Your task to perform on an android device: open chrome privacy settings Image 0: 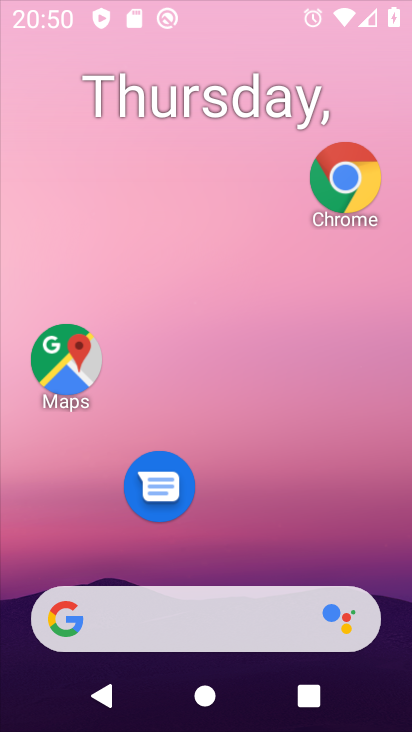
Step 0: click (233, 89)
Your task to perform on an android device: open chrome privacy settings Image 1: 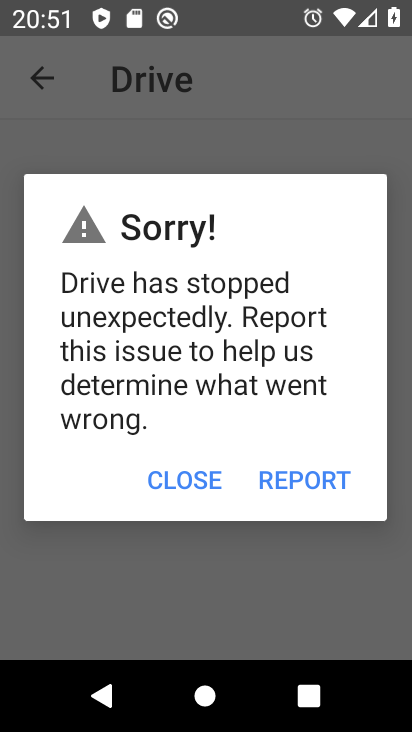
Step 1: press home button
Your task to perform on an android device: open chrome privacy settings Image 2: 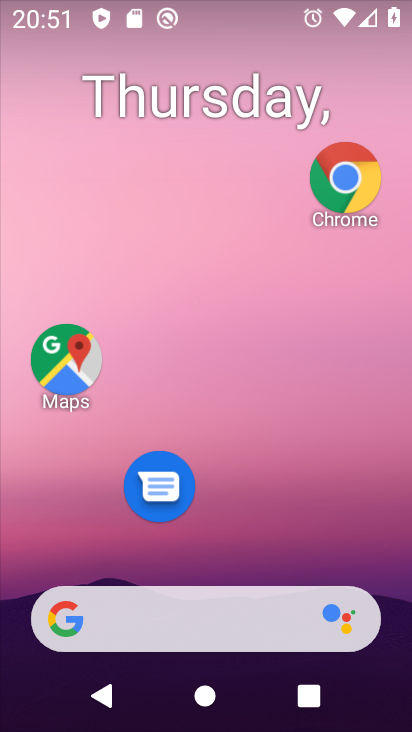
Step 2: click (332, 181)
Your task to perform on an android device: open chrome privacy settings Image 3: 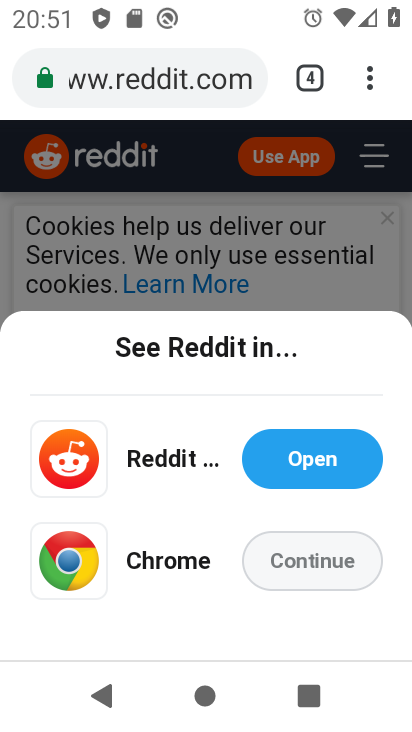
Step 3: click (376, 80)
Your task to perform on an android device: open chrome privacy settings Image 4: 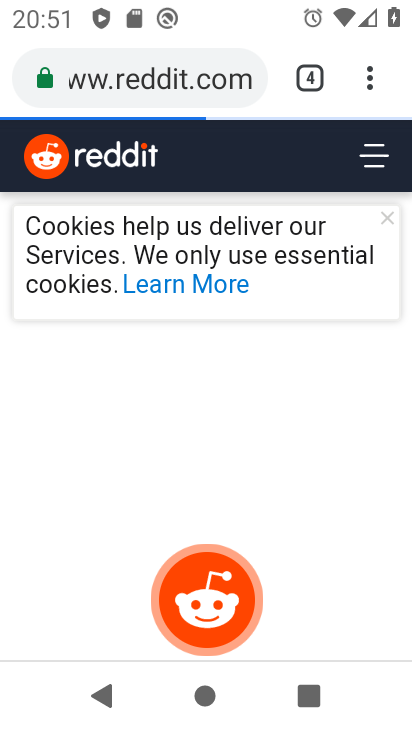
Step 4: drag from (371, 75) to (138, 559)
Your task to perform on an android device: open chrome privacy settings Image 5: 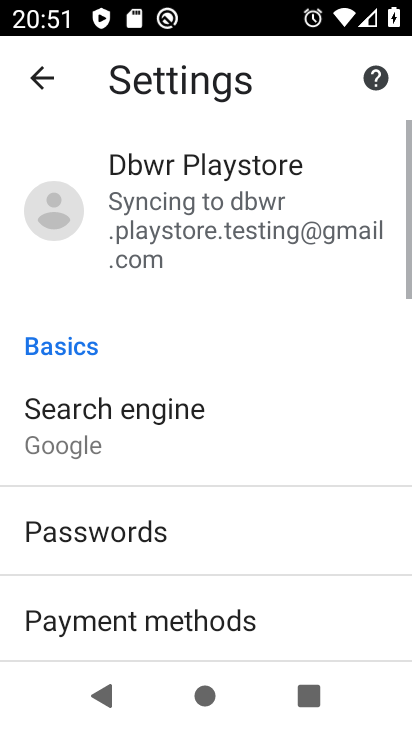
Step 5: drag from (133, 559) to (154, 68)
Your task to perform on an android device: open chrome privacy settings Image 6: 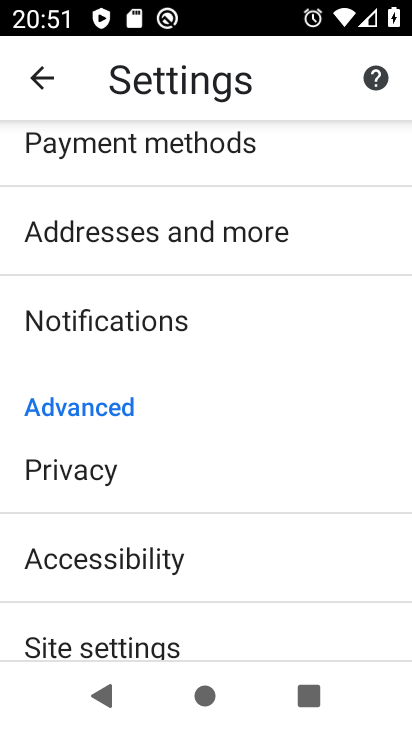
Step 6: click (109, 475)
Your task to perform on an android device: open chrome privacy settings Image 7: 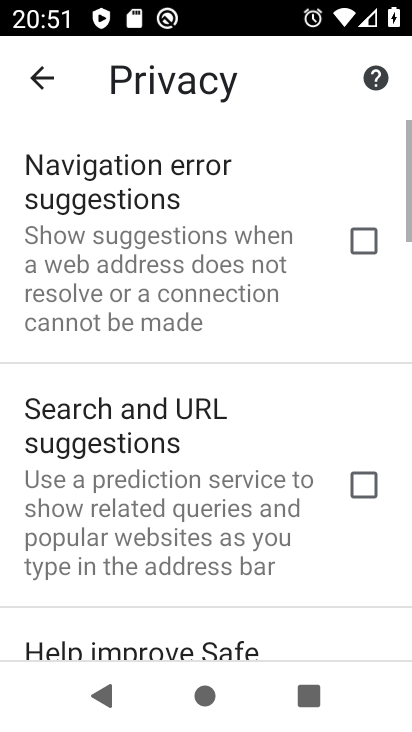
Step 7: task complete